Your task to perform on an android device: change text size in settings app Image 0: 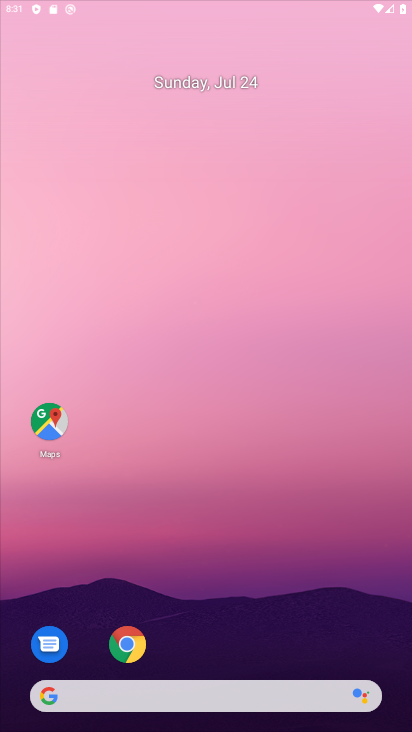
Step 0: drag from (301, 672) to (222, 14)
Your task to perform on an android device: change text size in settings app Image 1: 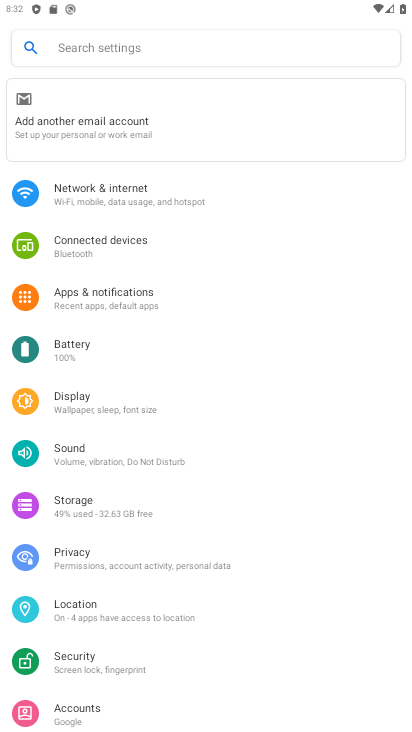
Step 1: click (89, 415)
Your task to perform on an android device: change text size in settings app Image 2: 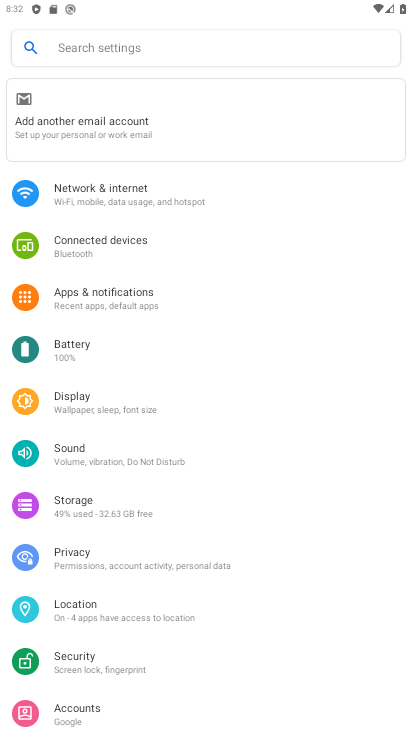
Step 2: click (82, 403)
Your task to perform on an android device: change text size in settings app Image 3: 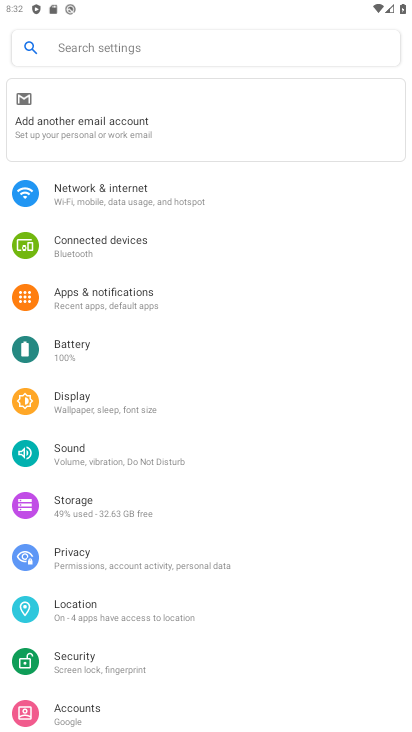
Step 3: click (80, 402)
Your task to perform on an android device: change text size in settings app Image 4: 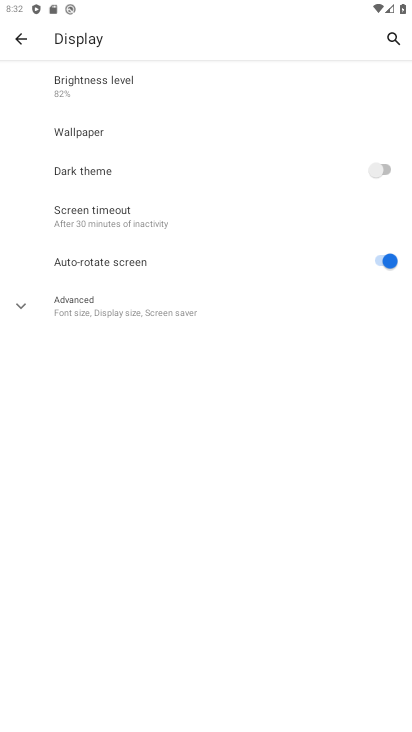
Step 4: click (84, 296)
Your task to perform on an android device: change text size in settings app Image 5: 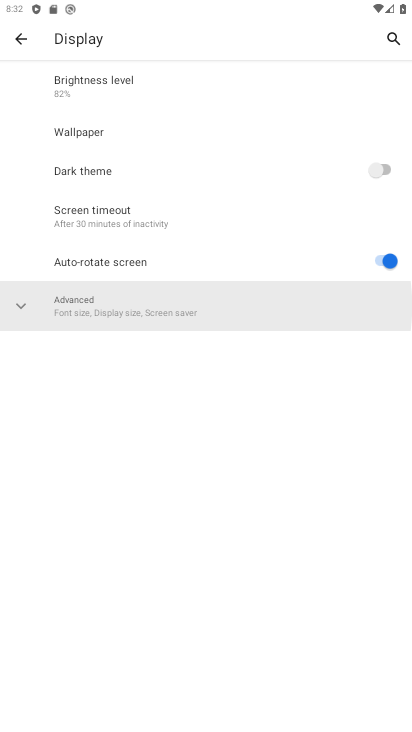
Step 5: click (84, 296)
Your task to perform on an android device: change text size in settings app Image 6: 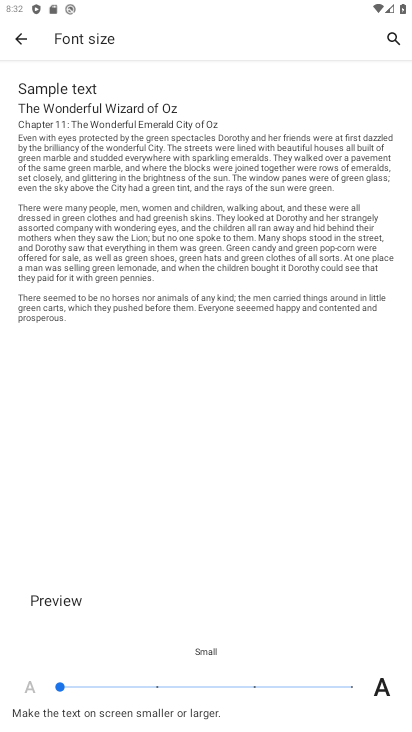
Step 6: click (349, 684)
Your task to perform on an android device: change text size in settings app Image 7: 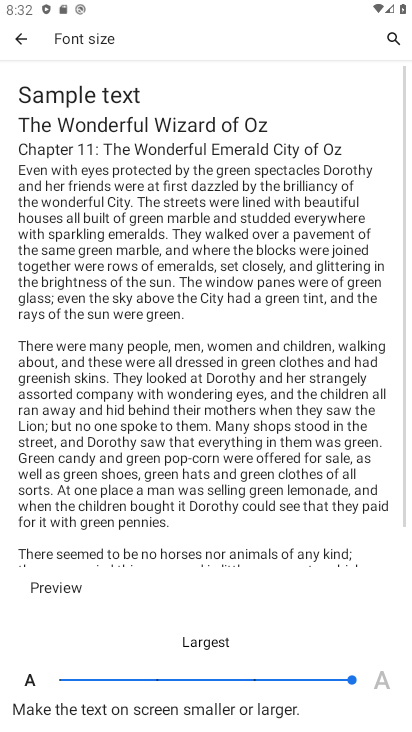
Step 7: task complete